Your task to perform on an android device: What's the price of the EGO 14-in 56-Volt Brushless Cordless Chainsaw? Image 0: 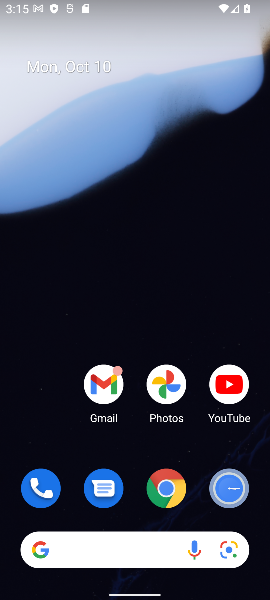
Step 0: drag from (52, 438) to (150, 35)
Your task to perform on an android device: What's the price of the EGO 14-in 56-Volt Brushless Cordless Chainsaw? Image 1: 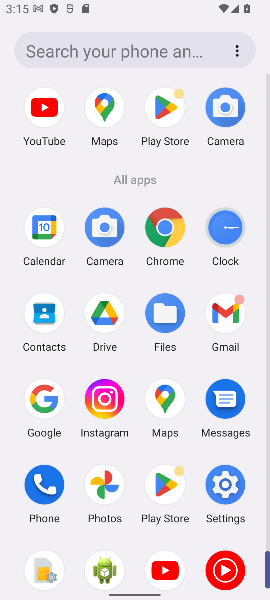
Step 1: click (165, 95)
Your task to perform on an android device: What's the price of the EGO 14-in 56-Volt Brushless Cordless Chainsaw? Image 2: 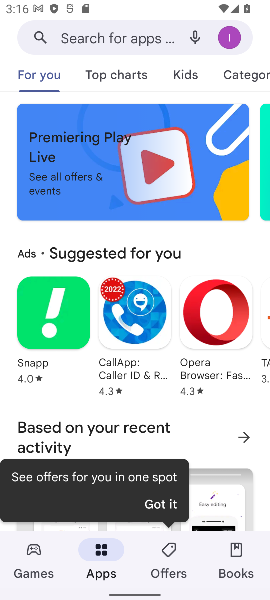
Step 2: click (104, 33)
Your task to perform on an android device: What's the price of the EGO 14-in 56-Volt Brushless Cordless Chainsaw? Image 3: 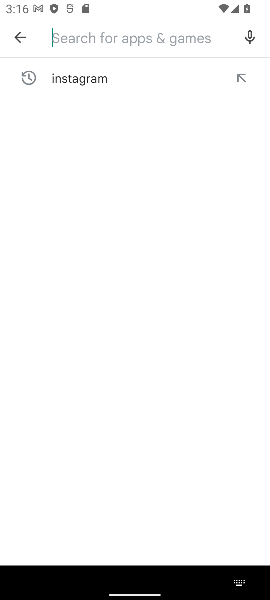
Step 3: press home button
Your task to perform on an android device: What's the price of the EGO 14-in 56-Volt Brushless Cordless Chainsaw? Image 4: 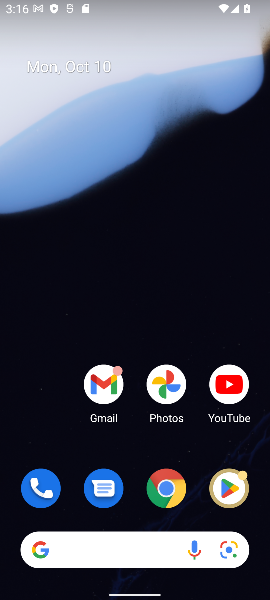
Step 4: drag from (28, 377) to (124, 53)
Your task to perform on an android device: What's the price of the EGO 14-in 56-Volt Brushless Cordless Chainsaw? Image 5: 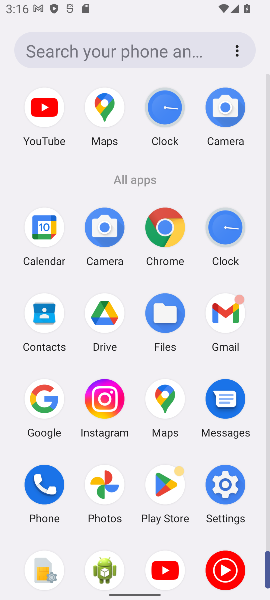
Step 5: drag from (144, 515) to (203, 66)
Your task to perform on an android device: What's the price of the EGO 14-in 56-Volt Brushless Cordless Chainsaw? Image 6: 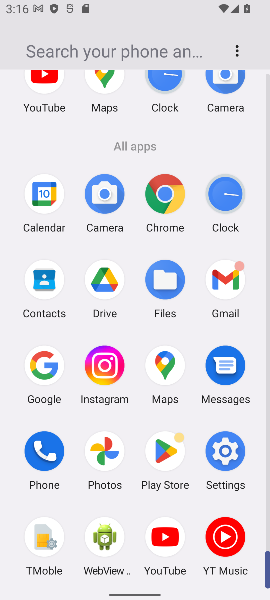
Step 6: drag from (185, 125) to (203, 105)
Your task to perform on an android device: What's the price of the EGO 14-in 56-Volt Brushless Cordless Chainsaw? Image 7: 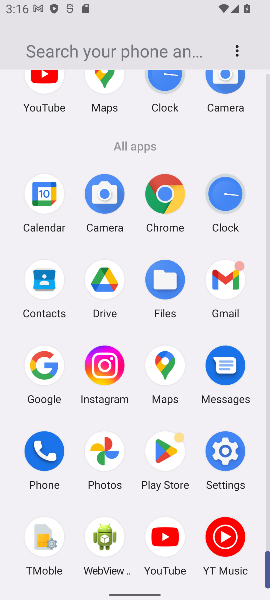
Step 7: press home button
Your task to perform on an android device: What's the price of the EGO 14-in 56-Volt Brushless Cordless Chainsaw? Image 8: 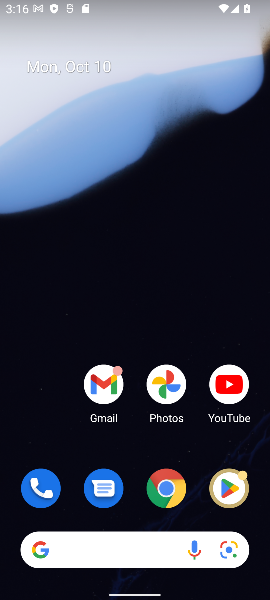
Step 8: drag from (67, 323) to (105, 85)
Your task to perform on an android device: What's the price of the EGO 14-in 56-Volt Brushless Cordless Chainsaw? Image 9: 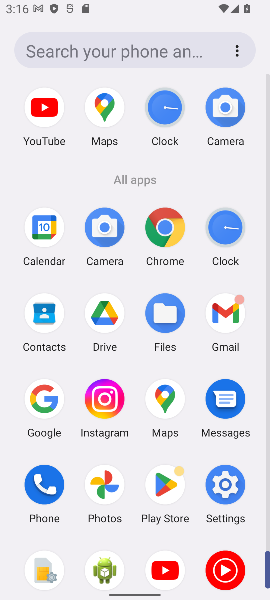
Step 9: click (51, 398)
Your task to perform on an android device: What's the price of the EGO 14-in 56-Volt Brushless Cordless Chainsaw? Image 10: 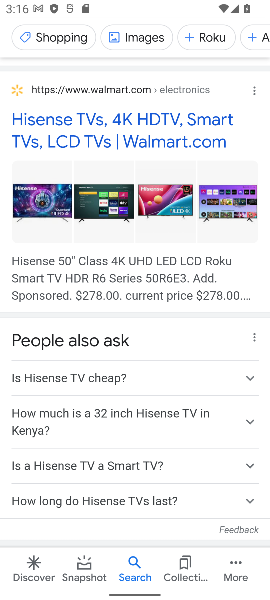
Step 10: drag from (121, 447) to (119, 589)
Your task to perform on an android device: What's the price of the EGO 14-in 56-Volt Brushless Cordless Chainsaw? Image 11: 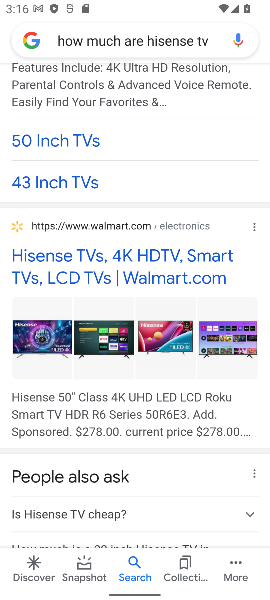
Step 11: drag from (148, 133) to (187, 583)
Your task to perform on an android device: What's the price of the EGO 14-in 56-Volt Brushless Cordless Chainsaw? Image 12: 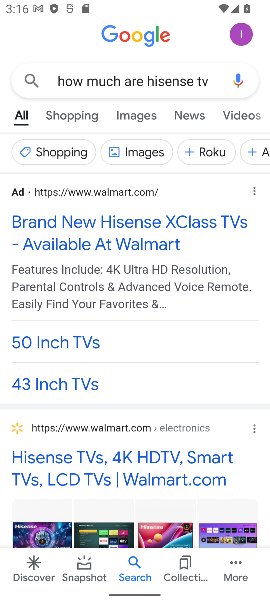
Step 12: drag from (135, 416) to (128, 460)
Your task to perform on an android device: What's the price of the EGO 14-in 56-Volt Brushless Cordless Chainsaw? Image 13: 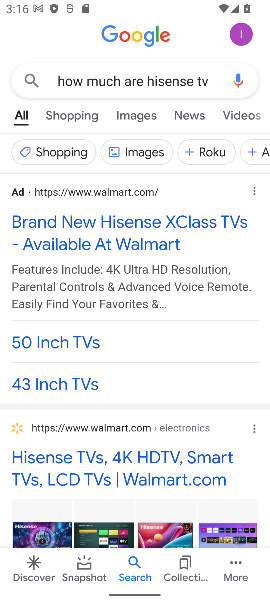
Step 13: drag from (88, 431) to (177, 595)
Your task to perform on an android device: What's the price of the EGO 14-in 56-Volt Brushless Cordless Chainsaw? Image 14: 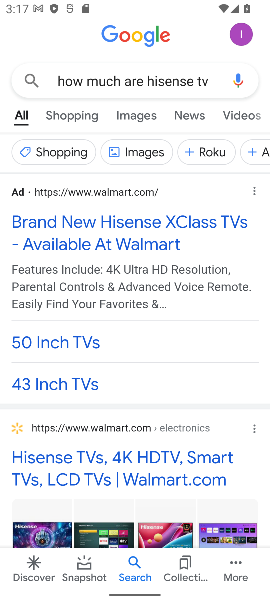
Step 14: drag from (174, 479) to (191, 122)
Your task to perform on an android device: What's the price of the EGO 14-in 56-Volt Brushless Cordless Chainsaw? Image 15: 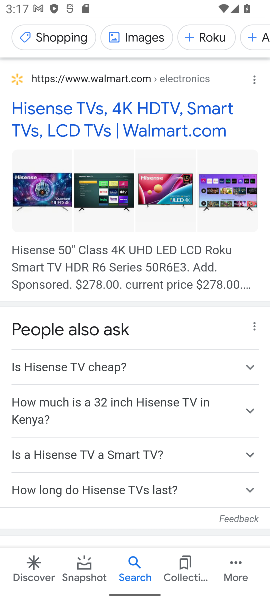
Step 15: drag from (117, 462) to (196, 98)
Your task to perform on an android device: What's the price of the EGO 14-in 56-Volt Brushless Cordless Chainsaw? Image 16: 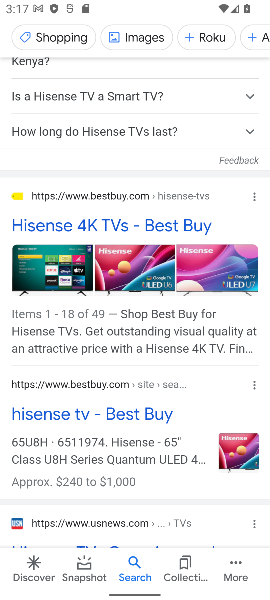
Step 16: drag from (169, 152) to (142, 557)
Your task to perform on an android device: What's the price of the EGO 14-in 56-Volt Brushless Cordless Chainsaw? Image 17: 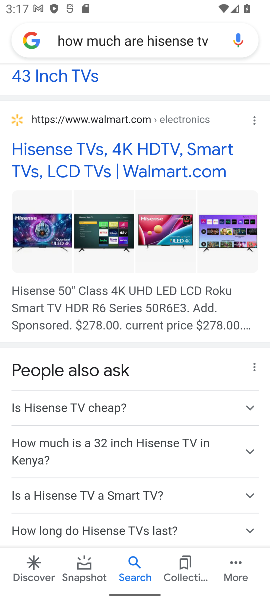
Step 17: drag from (172, 154) to (195, 593)
Your task to perform on an android device: What's the price of the EGO 14-in 56-Volt Brushless Cordless Chainsaw? Image 18: 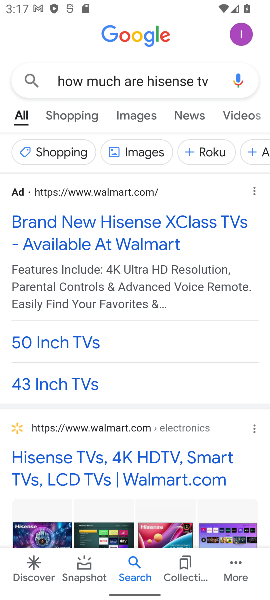
Step 18: click (206, 74)
Your task to perform on an android device: What's the price of the EGO 14-in 56-Volt Brushless Cordless Chainsaw? Image 19: 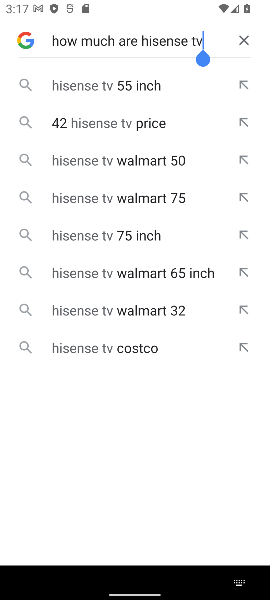
Step 19: click (239, 40)
Your task to perform on an android device: What's the price of the EGO 14-in 56-Volt Brushless Cordless Chainsaw? Image 20: 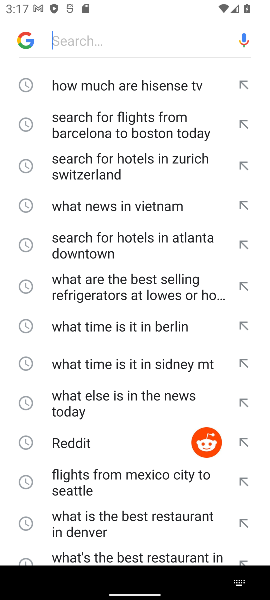
Step 20: click (143, 32)
Your task to perform on an android device: What's the price of the EGO 14-in 56-Volt Brushless Cordless Chainsaw? Image 21: 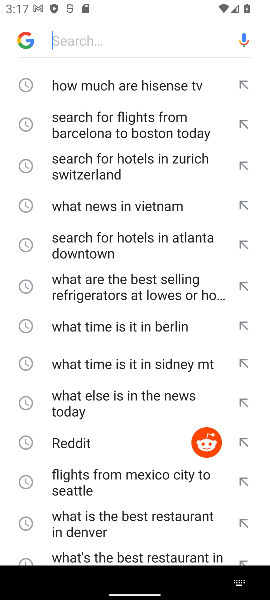
Step 21: type "What's the price of the EGO 14-in 56-Volt Brushless Cordless Chainsaw?"
Your task to perform on an android device: What's the price of the EGO 14-in 56-Volt Brushless Cordless Chainsaw? Image 22: 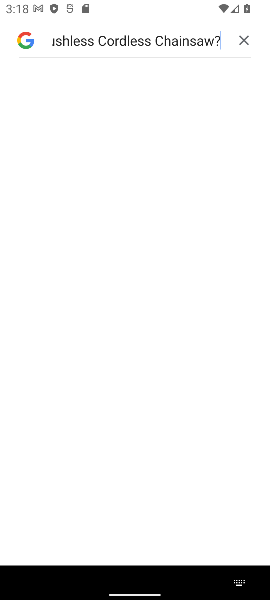
Step 22: task complete